Your task to perform on an android device: stop showing notifications on the lock screen Image 0: 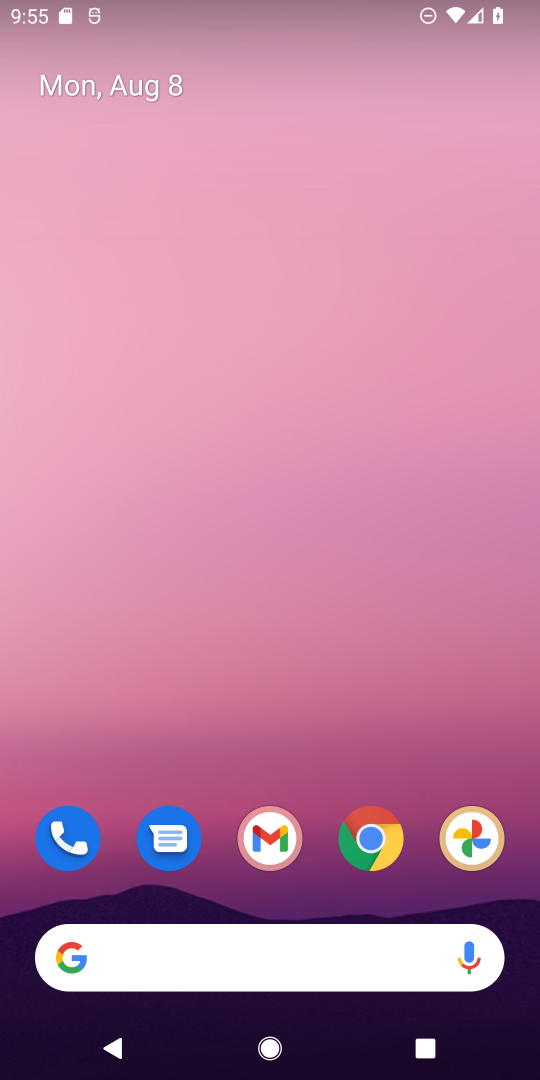
Step 0: press home button
Your task to perform on an android device: stop showing notifications on the lock screen Image 1: 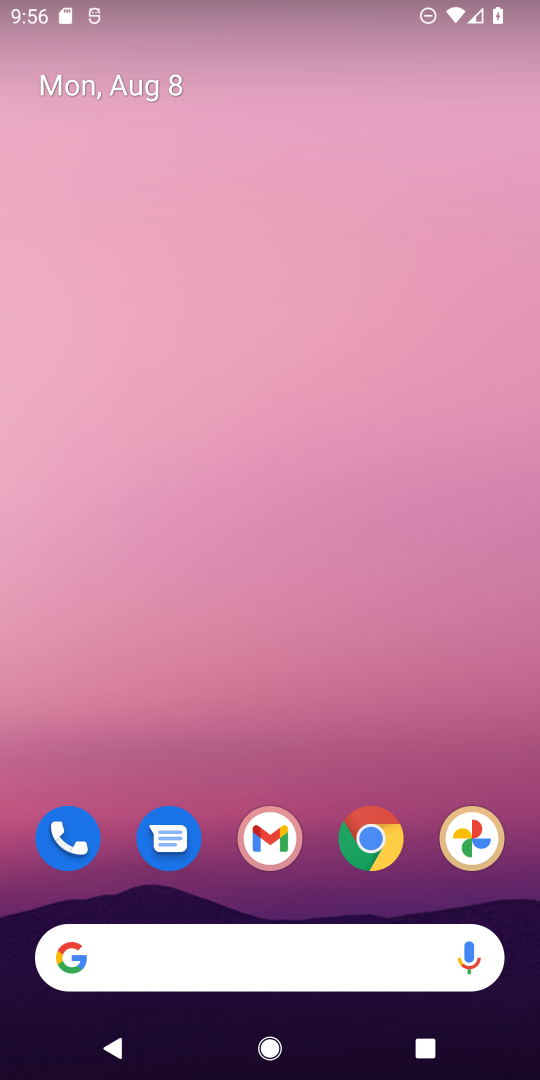
Step 1: drag from (344, 892) to (452, 160)
Your task to perform on an android device: stop showing notifications on the lock screen Image 2: 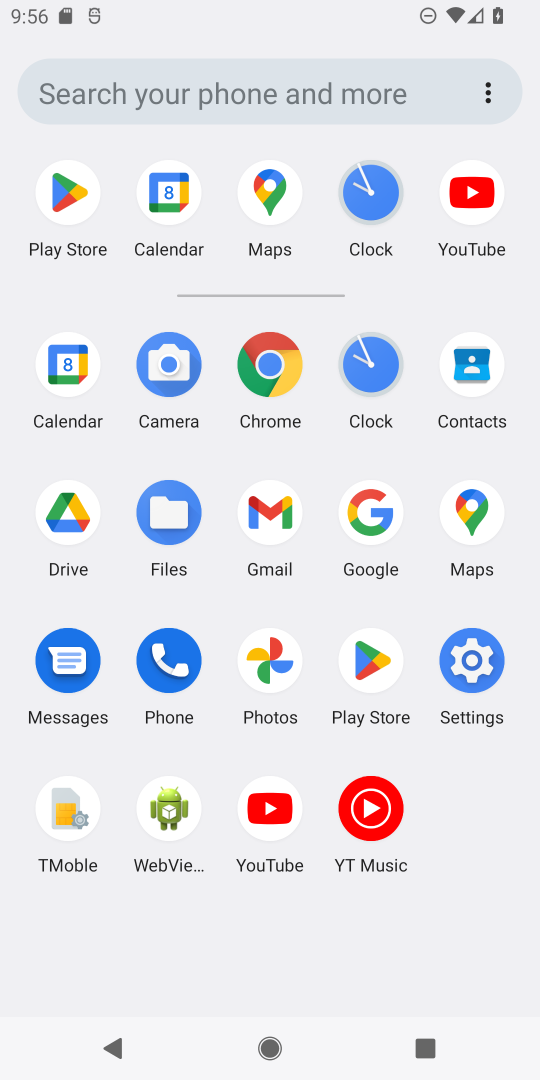
Step 2: click (470, 669)
Your task to perform on an android device: stop showing notifications on the lock screen Image 3: 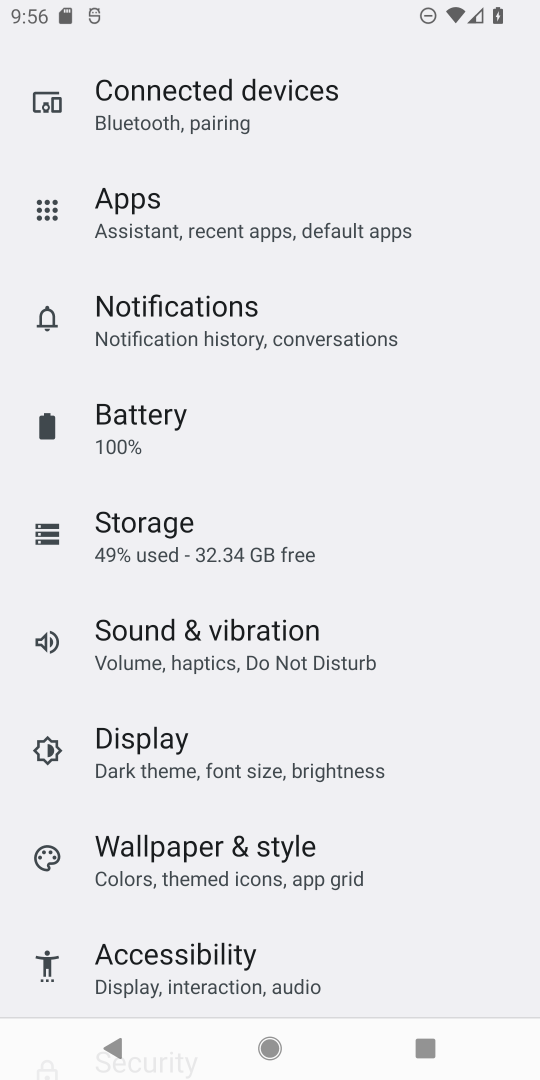
Step 3: click (186, 320)
Your task to perform on an android device: stop showing notifications on the lock screen Image 4: 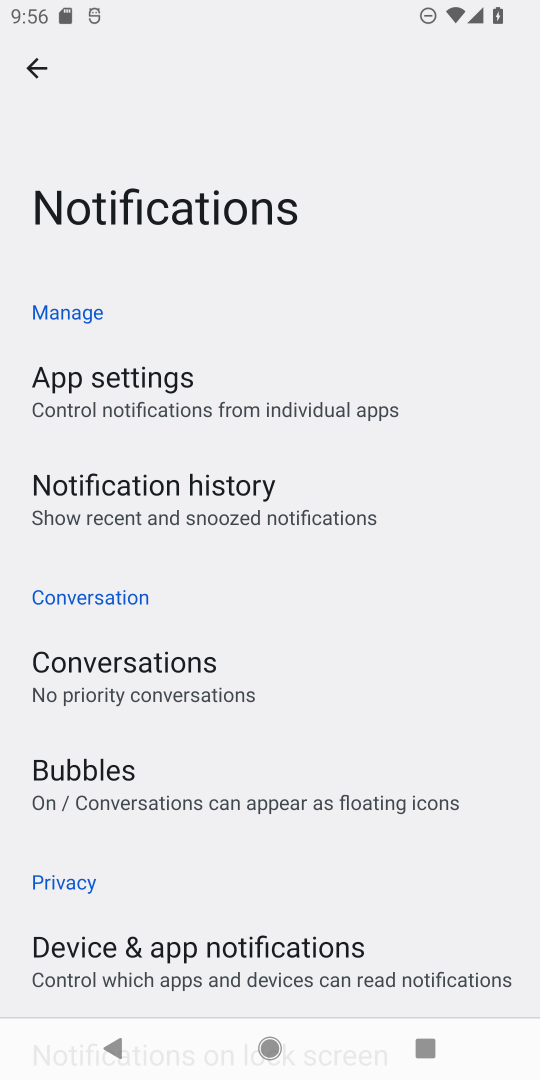
Step 4: drag from (318, 850) to (313, 166)
Your task to perform on an android device: stop showing notifications on the lock screen Image 5: 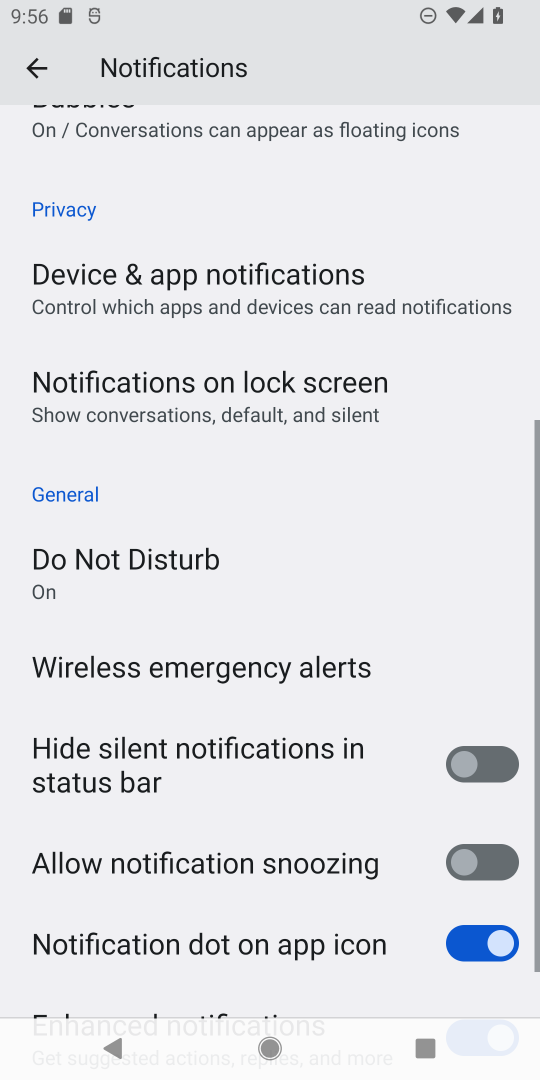
Step 5: drag from (341, 909) to (386, 264)
Your task to perform on an android device: stop showing notifications on the lock screen Image 6: 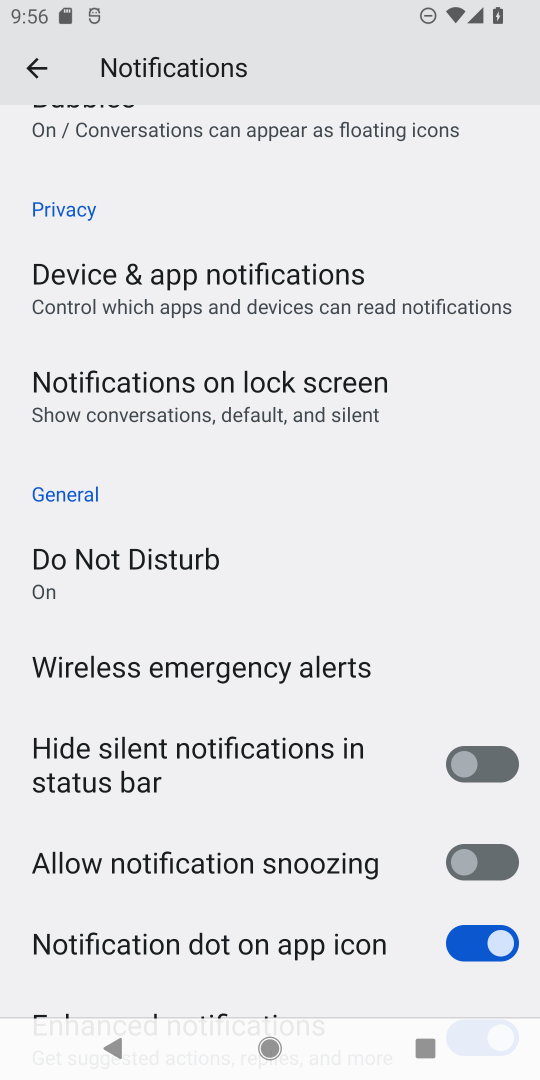
Step 6: click (202, 401)
Your task to perform on an android device: stop showing notifications on the lock screen Image 7: 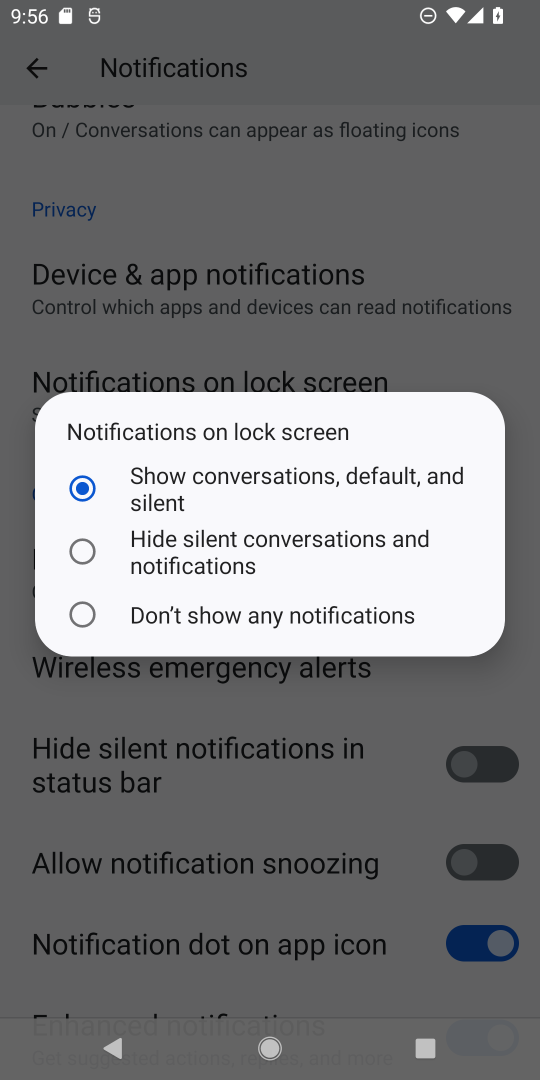
Step 7: click (76, 611)
Your task to perform on an android device: stop showing notifications on the lock screen Image 8: 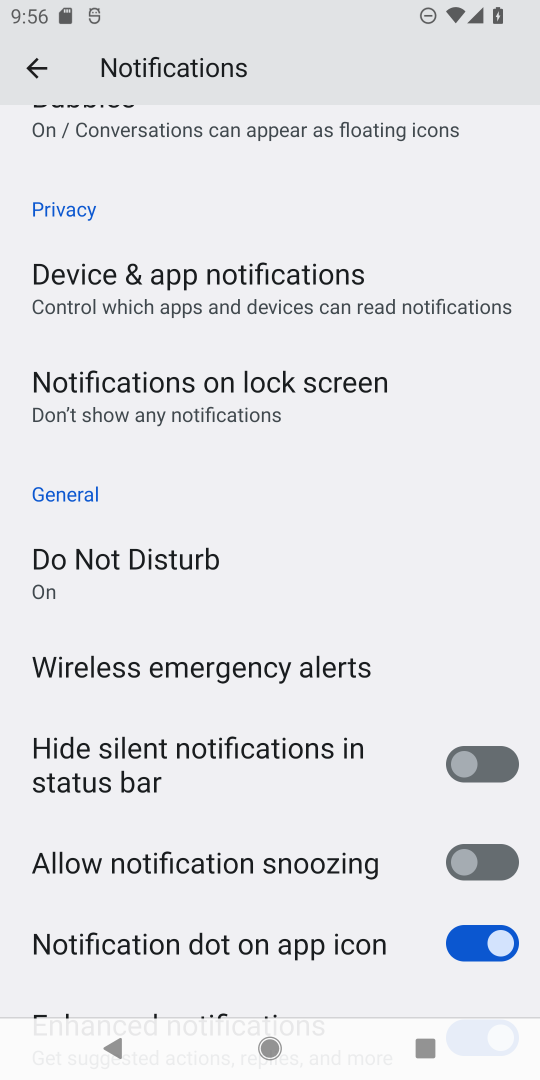
Step 8: task complete